Your task to perform on an android device: Search for Italian restaurants on Maps Image 0: 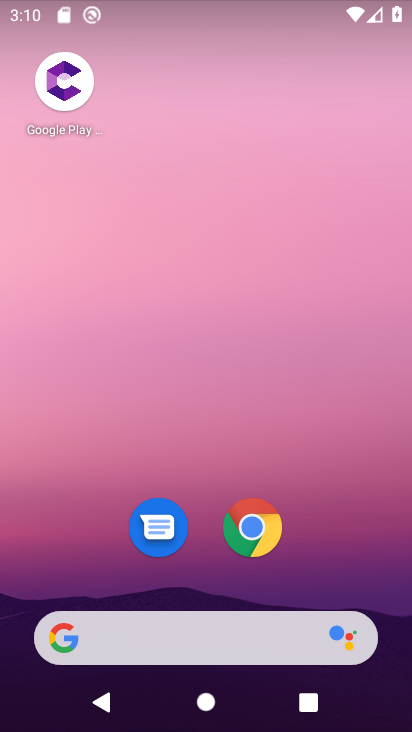
Step 0: drag from (399, 595) to (385, 323)
Your task to perform on an android device: Search for Italian restaurants on Maps Image 1: 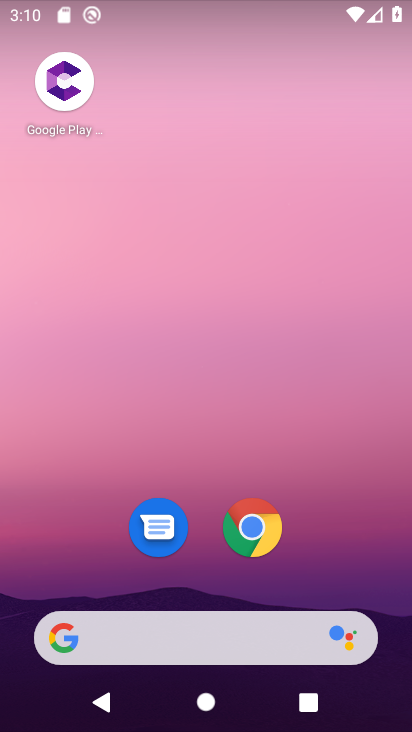
Step 1: drag from (396, 663) to (384, 298)
Your task to perform on an android device: Search for Italian restaurants on Maps Image 2: 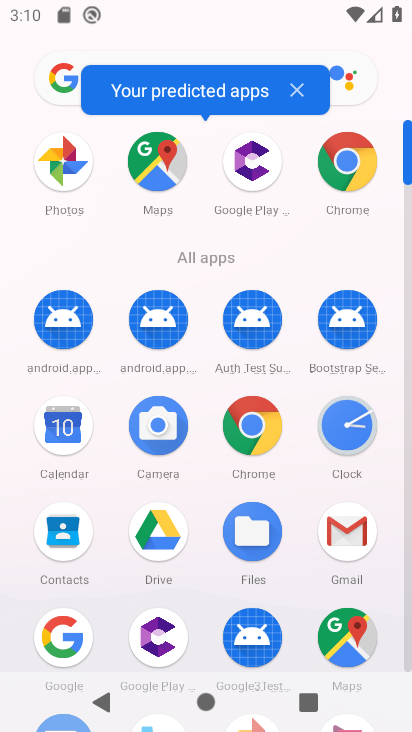
Step 2: click (364, 633)
Your task to perform on an android device: Search for Italian restaurants on Maps Image 3: 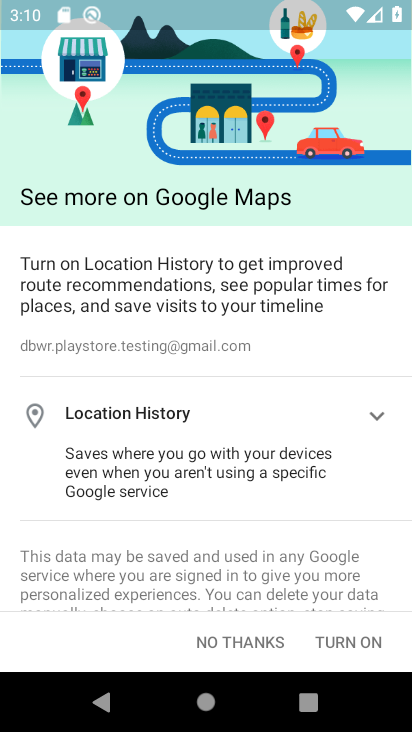
Step 3: click (344, 640)
Your task to perform on an android device: Search for Italian restaurants on Maps Image 4: 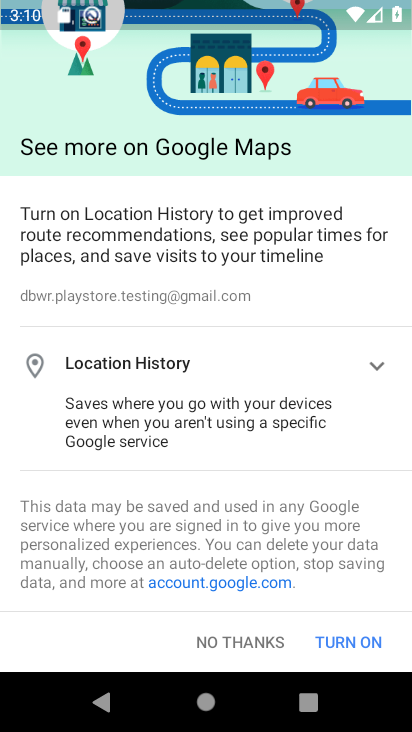
Step 4: press back button
Your task to perform on an android device: Search for Italian restaurants on Maps Image 5: 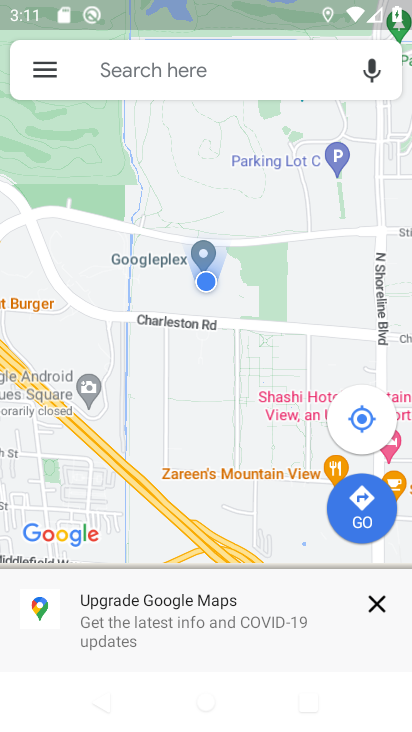
Step 5: click (113, 70)
Your task to perform on an android device: Search for Italian restaurants on Maps Image 6: 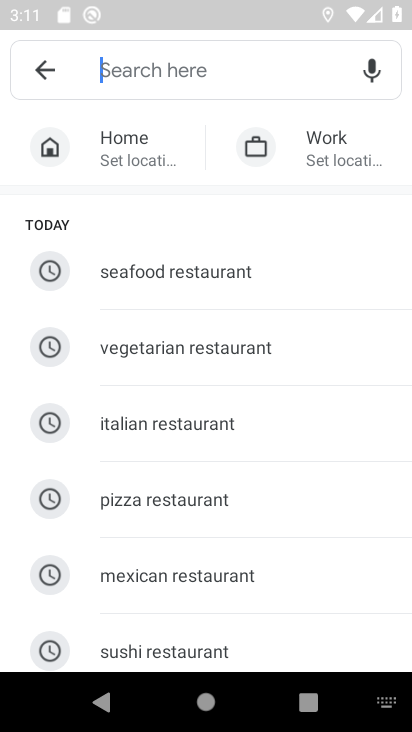
Step 6: type "Italian restaurants"
Your task to perform on an android device: Search for Italian restaurants on Maps Image 7: 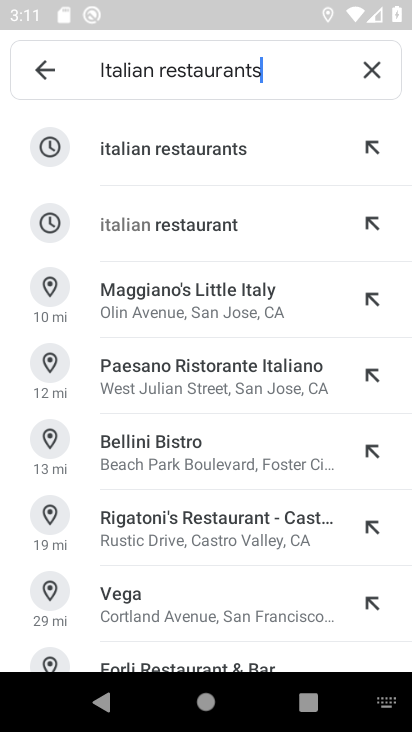
Step 7: click (168, 154)
Your task to perform on an android device: Search for Italian restaurants on Maps Image 8: 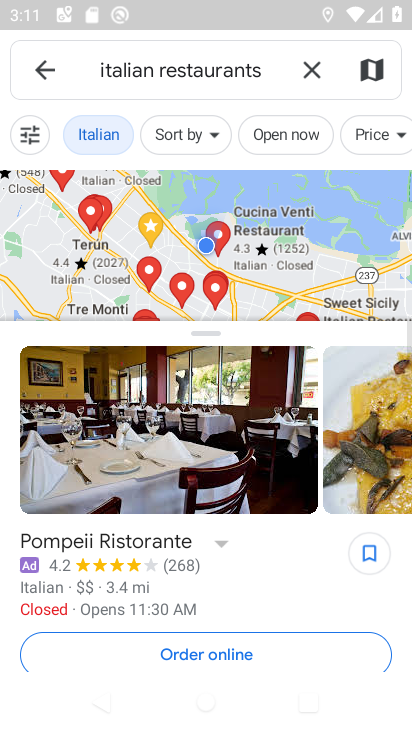
Step 8: task complete